Your task to perform on an android device: Search for pizza restaurants on Maps Image 0: 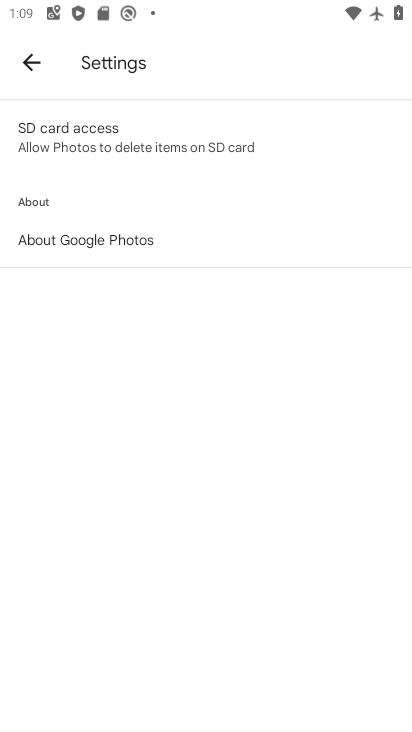
Step 0: press home button
Your task to perform on an android device: Search for pizza restaurants on Maps Image 1: 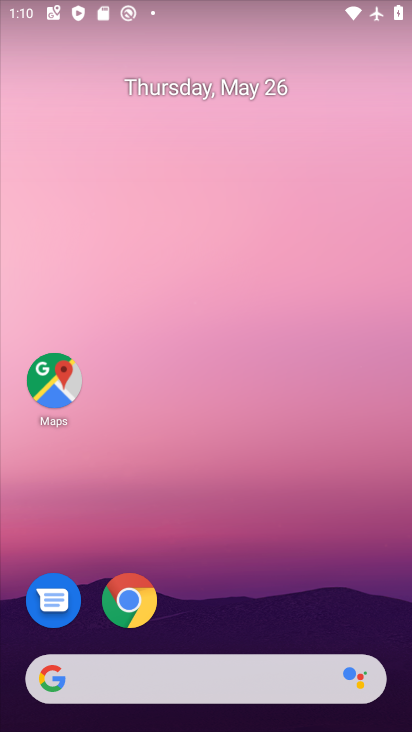
Step 1: click (66, 384)
Your task to perform on an android device: Search for pizza restaurants on Maps Image 2: 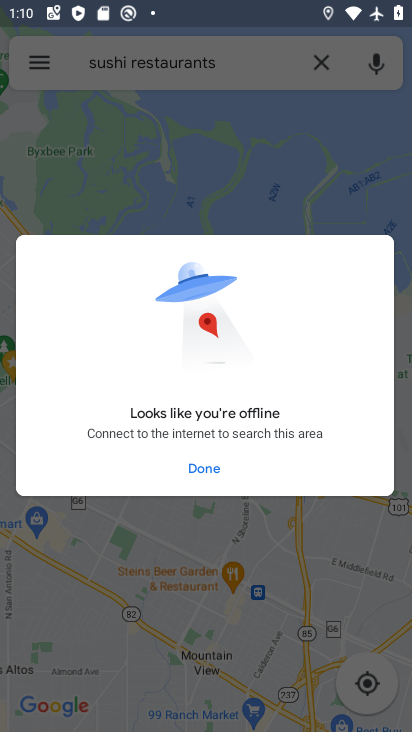
Step 2: click (191, 471)
Your task to perform on an android device: Search for pizza restaurants on Maps Image 3: 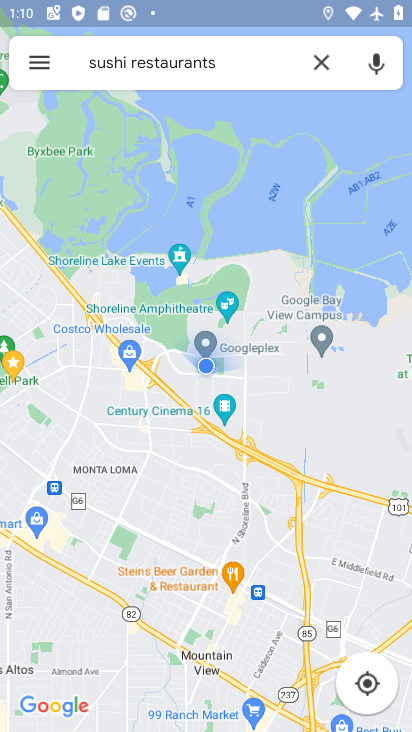
Step 3: click (218, 60)
Your task to perform on an android device: Search for pizza restaurants on Maps Image 4: 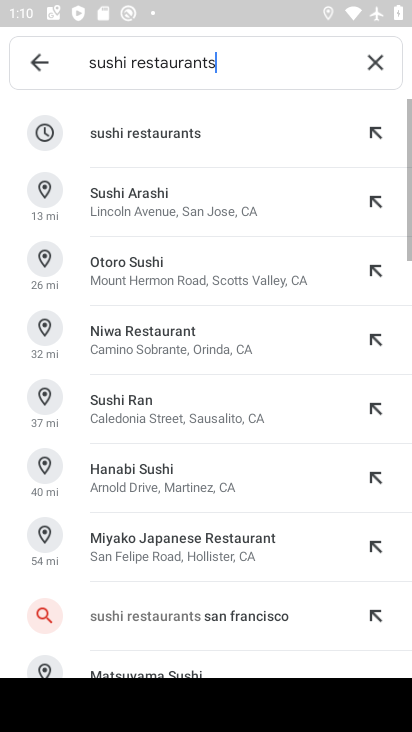
Step 4: click (375, 57)
Your task to perform on an android device: Search for pizza restaurants on Maps Image 5: 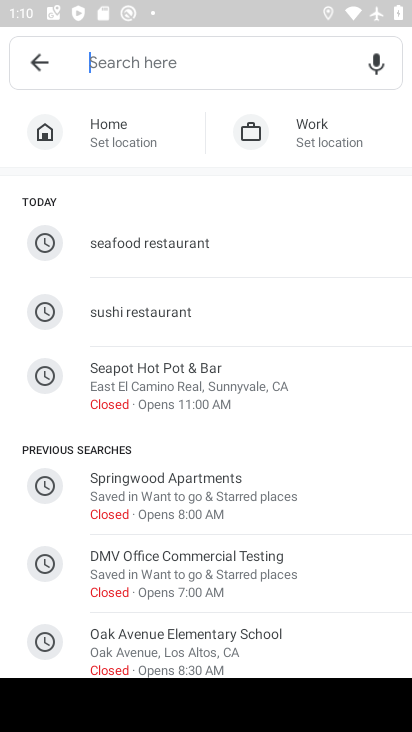
Step 5: type "pizza restaurants"
Your task to perform on an android device: Search for pizza restaurants on Maps Image 6: 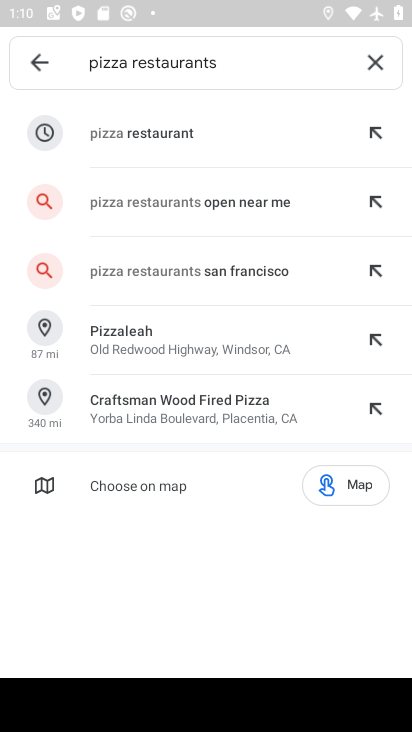
Step 6: press enter
Your task to perform on an android device: Search for pizza restaurants on Maps Image 7: 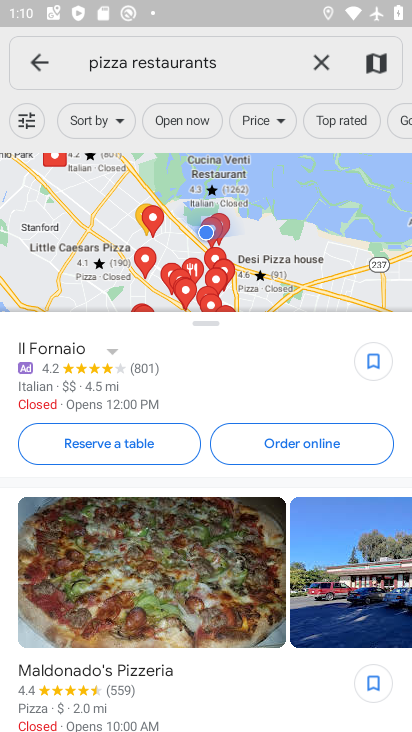
Step 7: task complete